Your task to perform on an android device: Open settings Image 0: 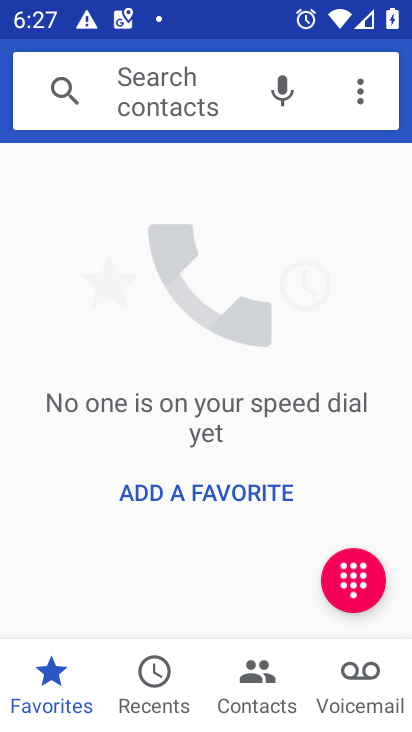
Step 0: press home button
Your task to perform on an android device: Open settings Image 1: 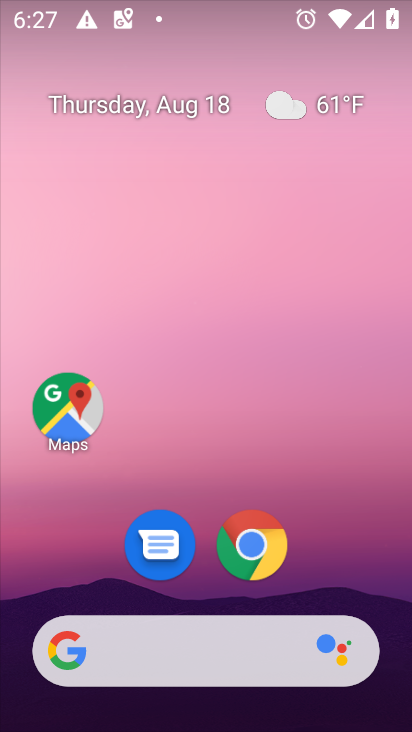
Step 1: drag from (322, 557) to (244, 163)
Your task to perform on an android device: Open settings Image 2: 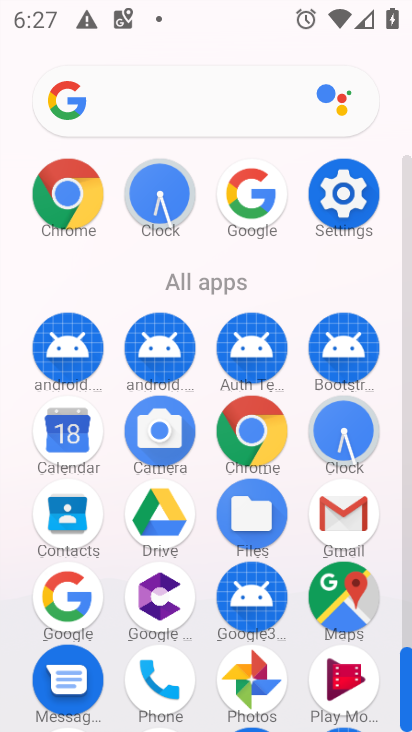
Step 2: click (345, 192)
Your task to perform on an android device: Open settings Image 3: 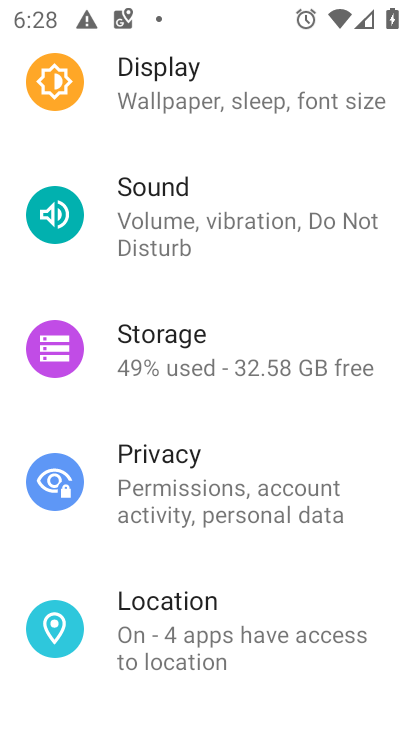
Step 3: task complete